Your task to perform on an android device: Add energizer triple a to the cart on ebay Image 0: 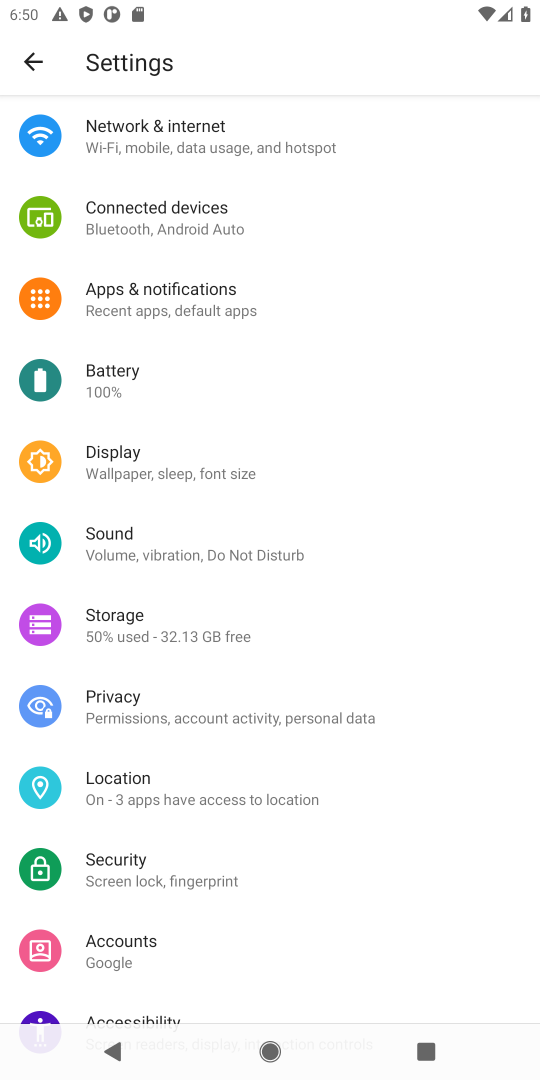
Step 0: press home button
Your task to perform on an android device: Add energizer triple a to the cart on ebay Image 1: 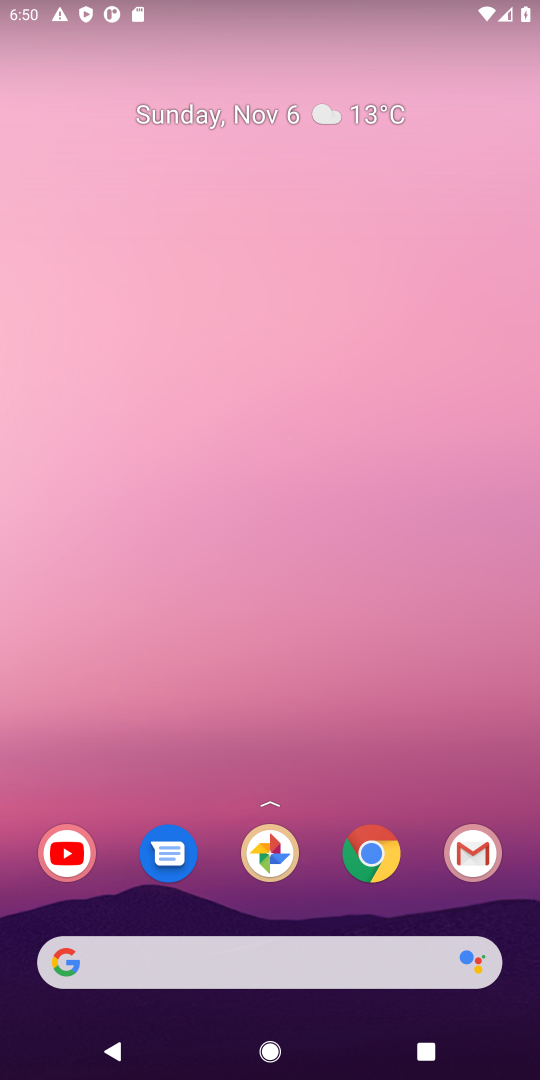
Step 1: click (370, 849)
Your task to perform on an android device: Add energizer triple a to the cart on ebay Image 2: 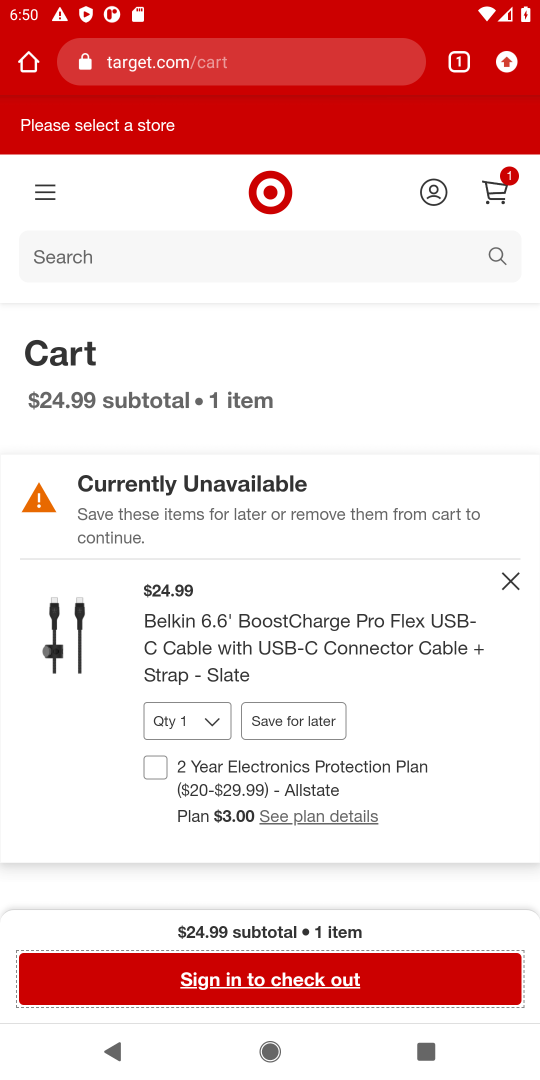
Step 2: click (246, 47)
Your task to perform on an android device: Add energizer triple a to the cart on ebay Image 3: 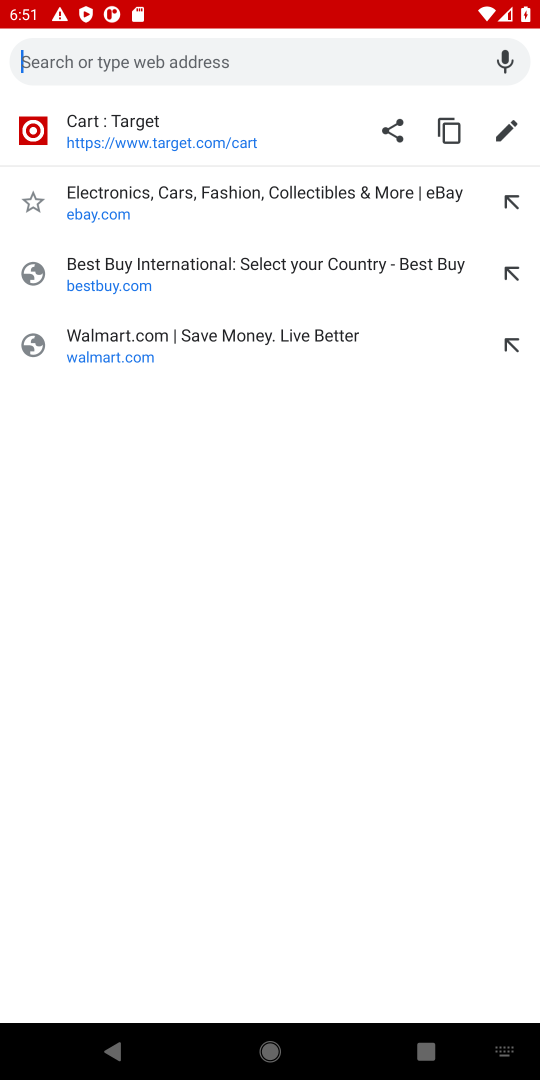
Step 3: click (114, 217)
Your task to perform on an android device: Add energizer triple a to the cart on ebay Image 4: 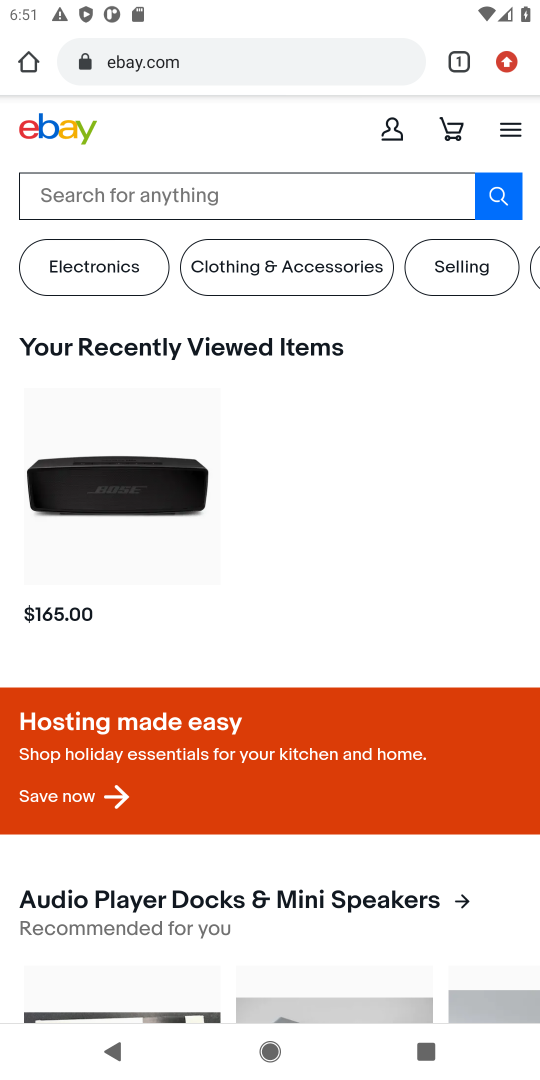
Step 4: click (168, 186)
Your task to perform on an android device: Add energizer triple a to the cart on ebay Image 5: 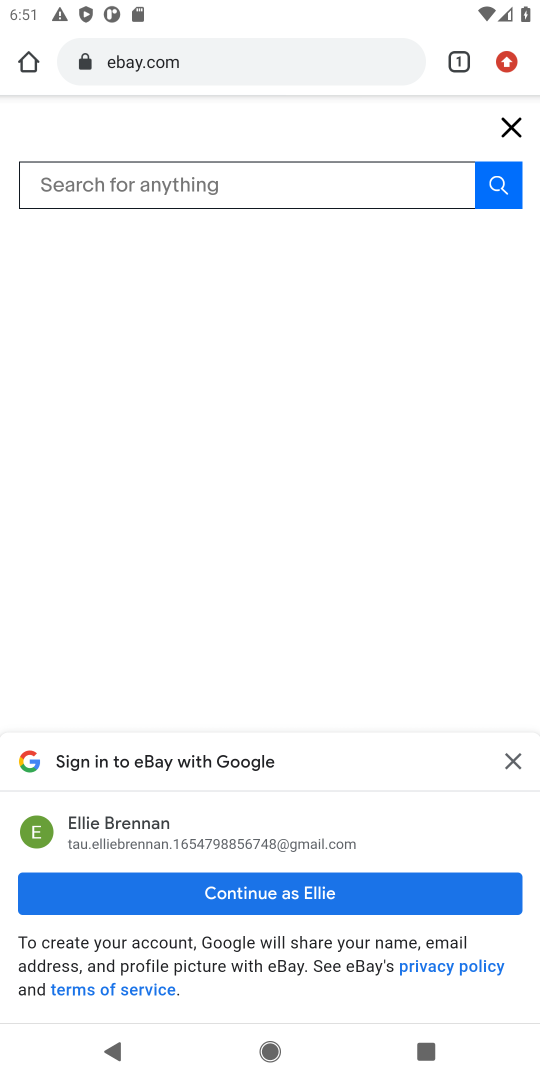
Step 5: click (243, 885)
Your task to perform on an android device: Add energizer triple a to the cart on ebay Image 6: 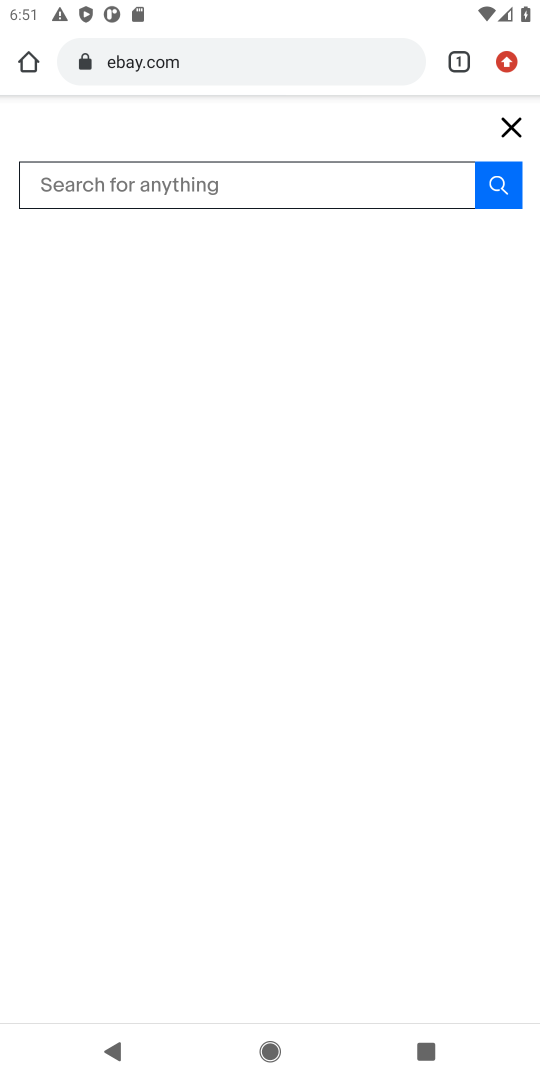
Step 6: click (188, 186)
Your task to perform on an android device: Add energizer triple a to the cart on ebay Image 7: 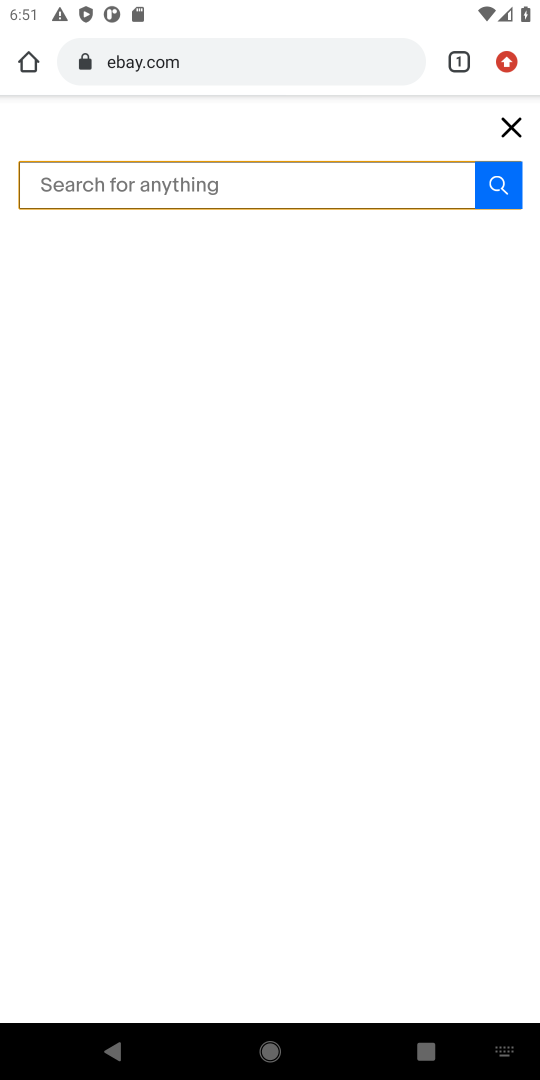
Step 7: click (509, 121)
Your task to perform on an android device: Add energizer triple a to the cart on ebay Image 8: 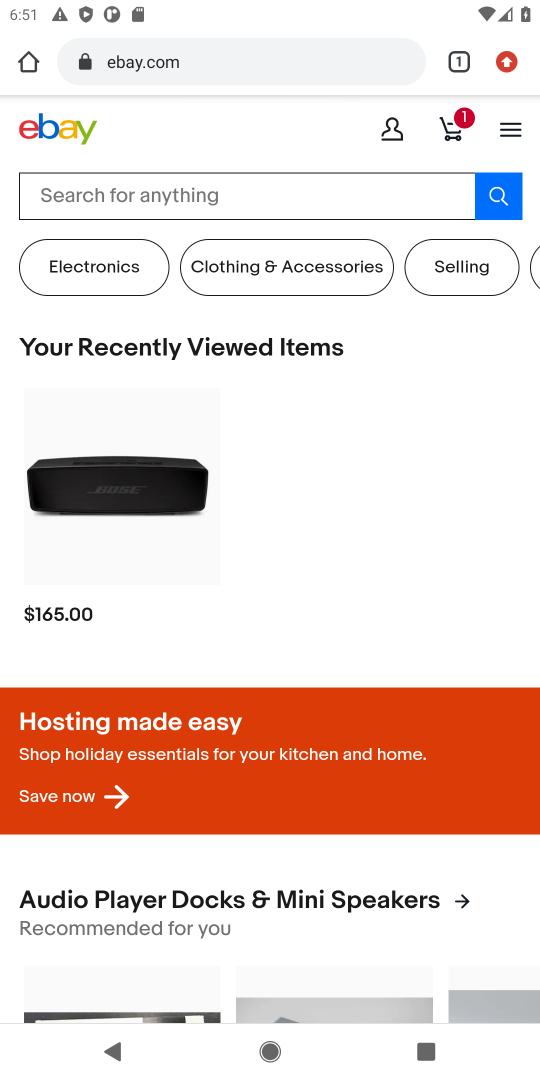
Step 8: click (262, 183)
Your task to perform on an android device: Add energizer triple a to the cart on ebay Image 9: 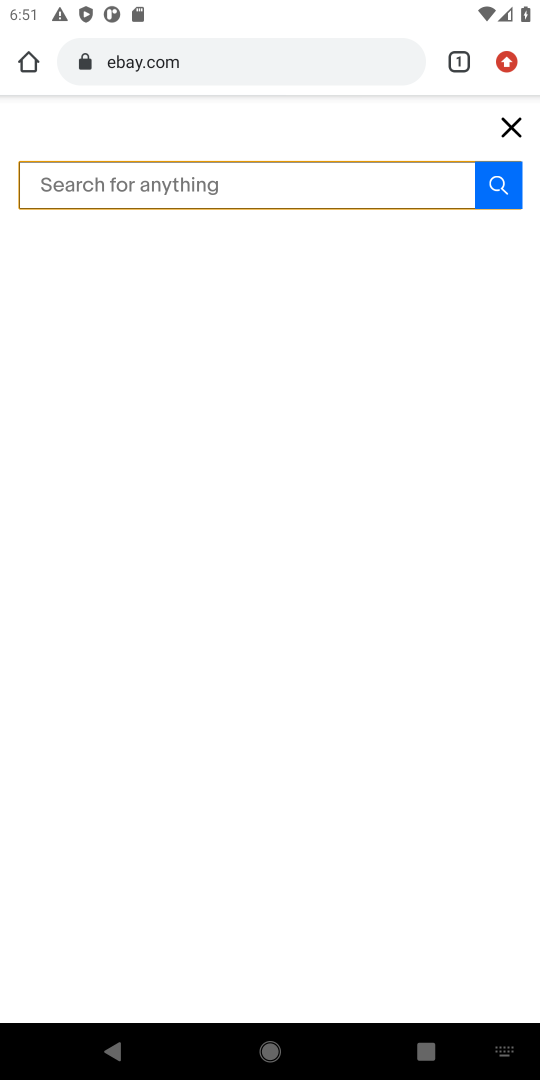
Step 9: type "energizer triple a"
Your task to perform on an android device: Add energizer triple a to the cart on ebay Image 10: 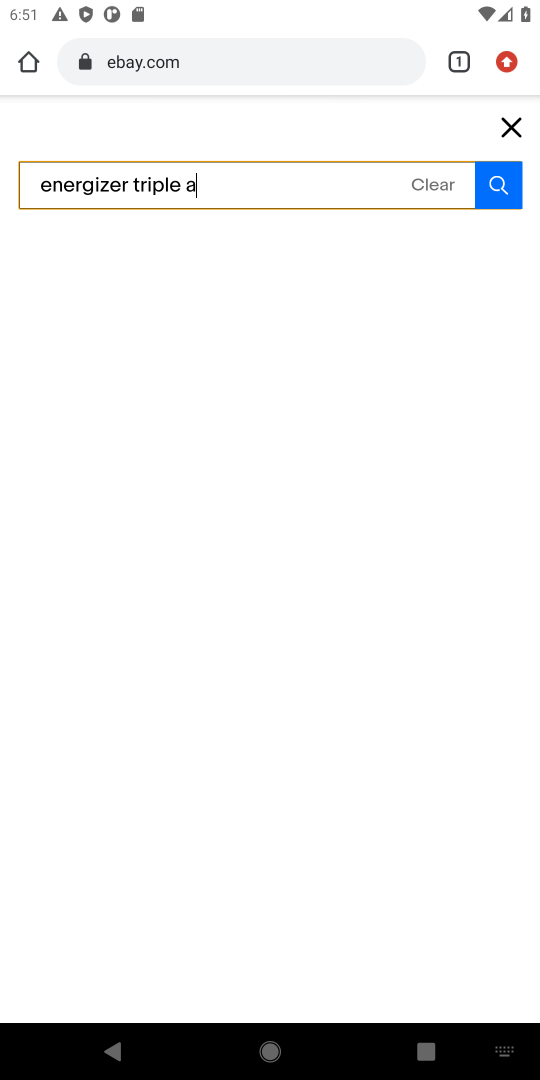
Step 10: click (500, 192)
Your task to perform on an android device: Add energizer triple a to the cart on ebay Image 11: 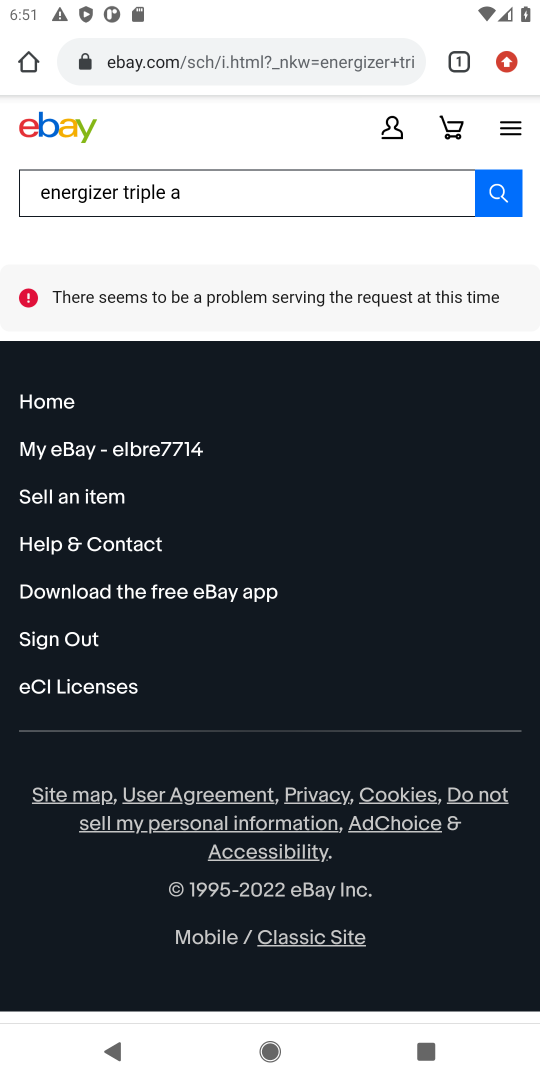
Step 11: click (494, 191)
Your task to perform on an android device: Add energizer triple a to the cart on ebay Image 12: 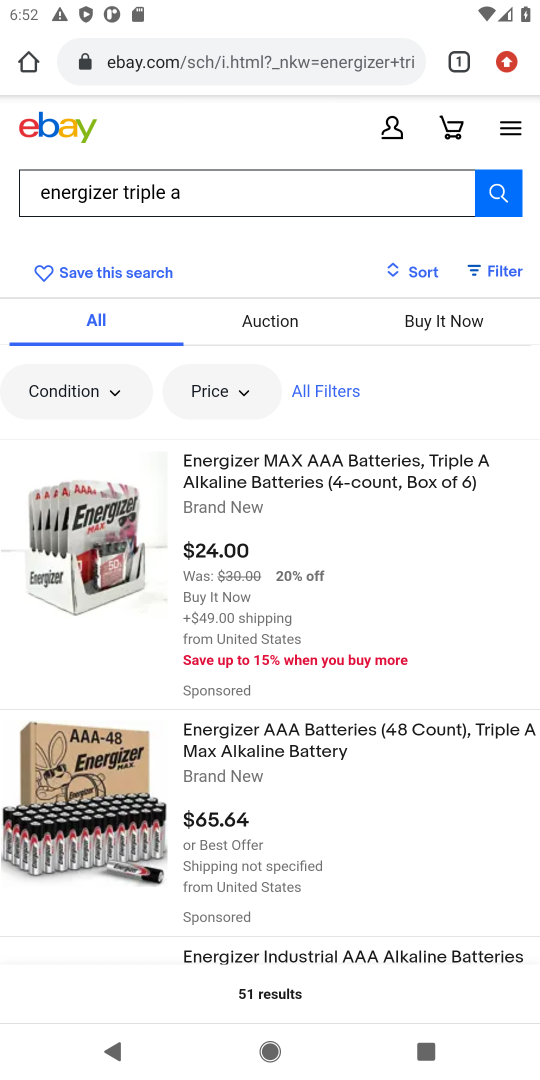
Step 12: click (268, 465)
Your task to perform on an android device: Add energizer triple a to the cart on ebay Image 13: 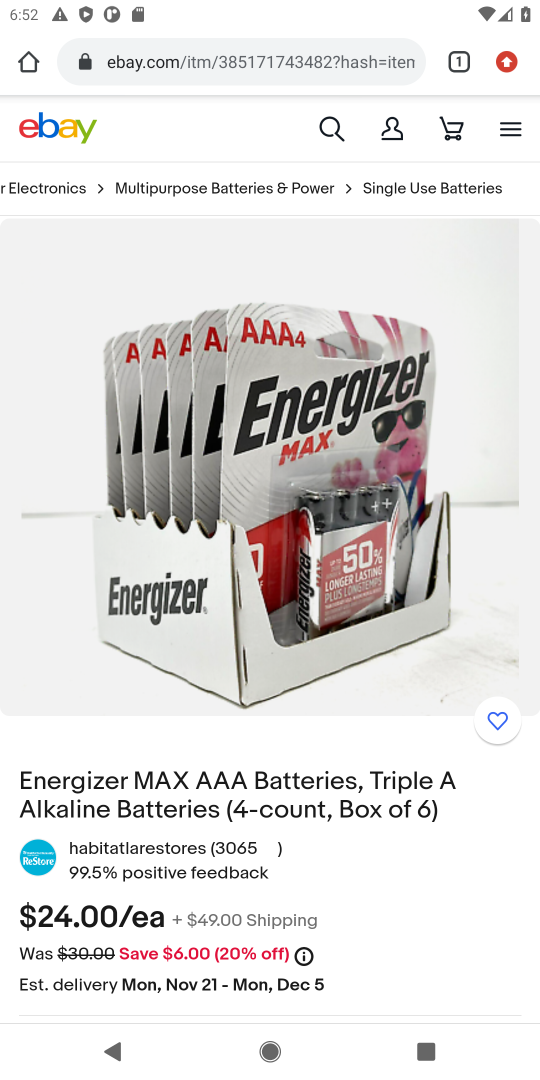
Step 13: drag from (353, 826) to (332, 425)
Your task to perform on an android device: Add energizer triple a to the cart on ebay Image 14: 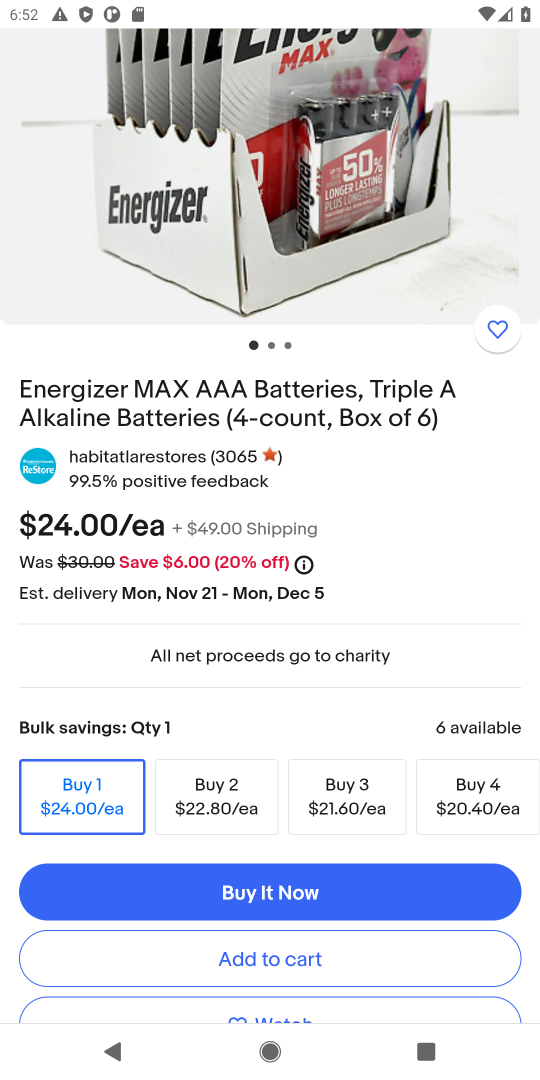
Step 14: click (240, 961)
Your task to perform on an android device: Add energizer triple a to the cart on ebay Image 15: 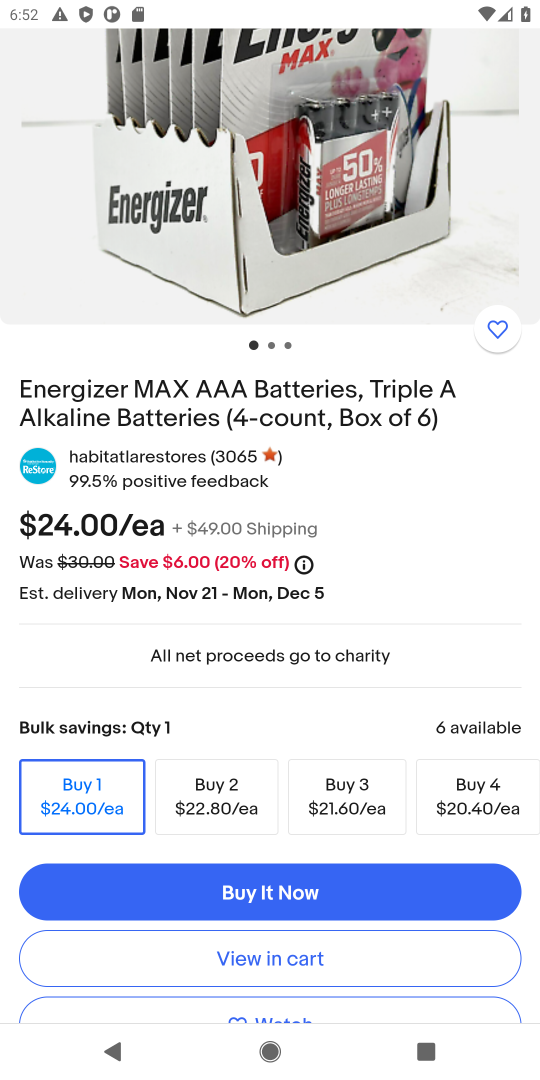
Step 15: click (287, 957)
Your task to perform on an android device: Add energizer triple a to the cart on ebay Image 16: 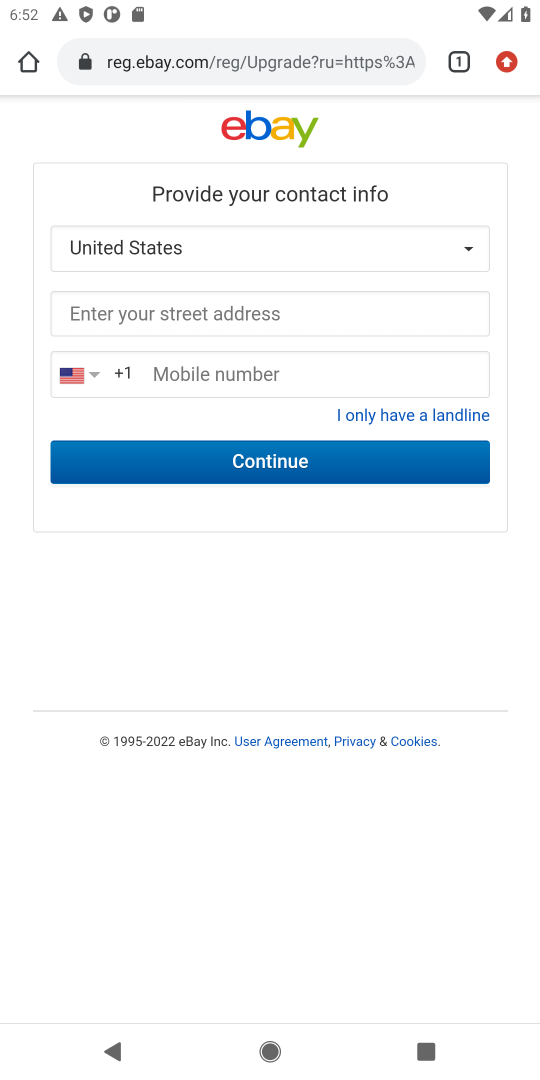
Step 16: task complete